Your task to perform on an android device: allow notifications from all sites in the chrome app Image 0: 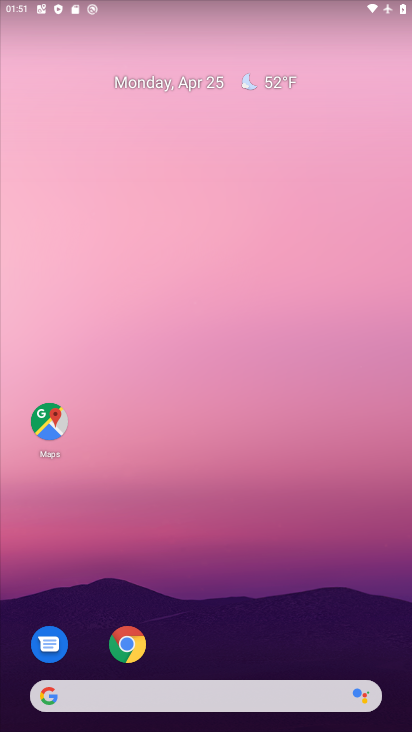
Step 0: drag from (216, 649) to (222, 42)
Your task to perform on an android device: allow notifications from all sites in the chrome app Image 1: 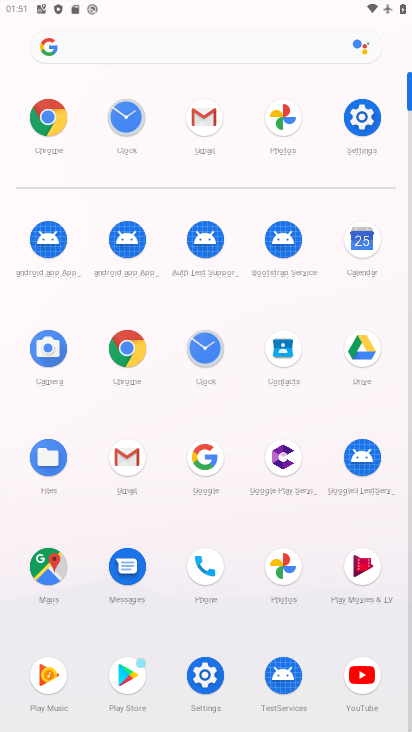
Step 1: click (48, 115)
Your task to perform on an android device: allow notifications from all sites in the chrome app Image 2: 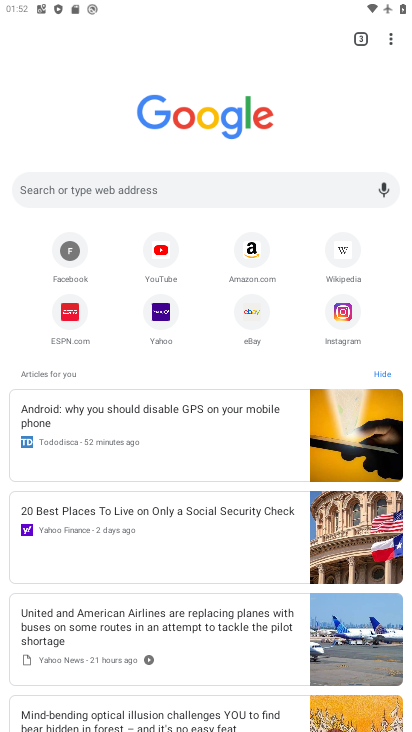
Step 2: click (393, 52)
Your task to perform on an android device: allow notifications from all sites in the chrome app Image 3: 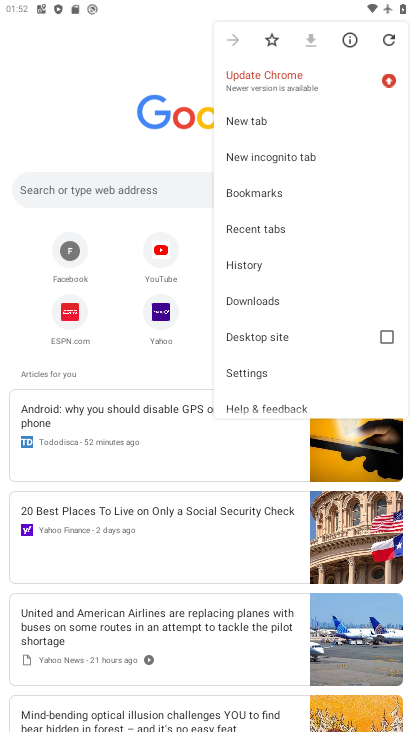
Step 3: click (294, 372)
Your task to perform on an android device: allow notifications from all sites in the chrome app Image 4: 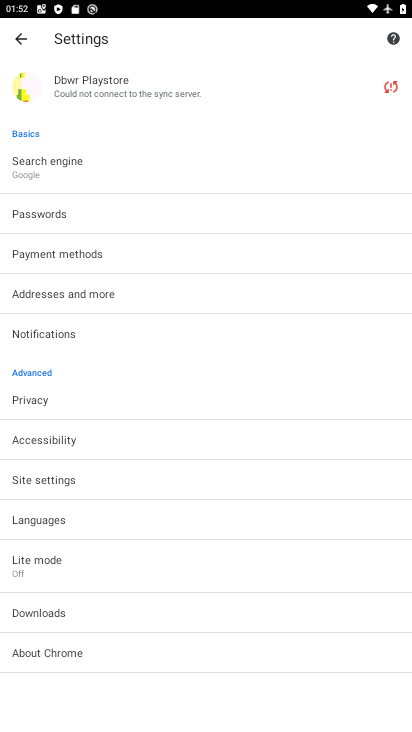
Step 4: task complete